Your task to perform on an android device: Clear the cart on target. Search for razer nari on target, select the first entry, add it to the cart, then select checkout. Image 0: 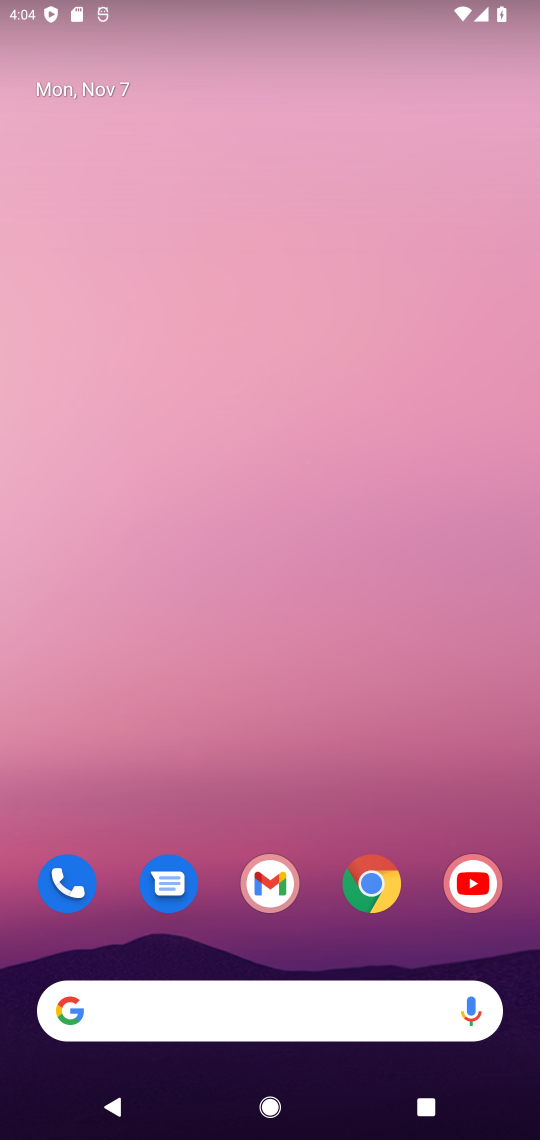
Step 0: click (370, 886)
Your task to perform on an android device: Clear the cart on target. Search for razer nari on target, select the first entry, add it to the cart, then select checkout. Image 1: 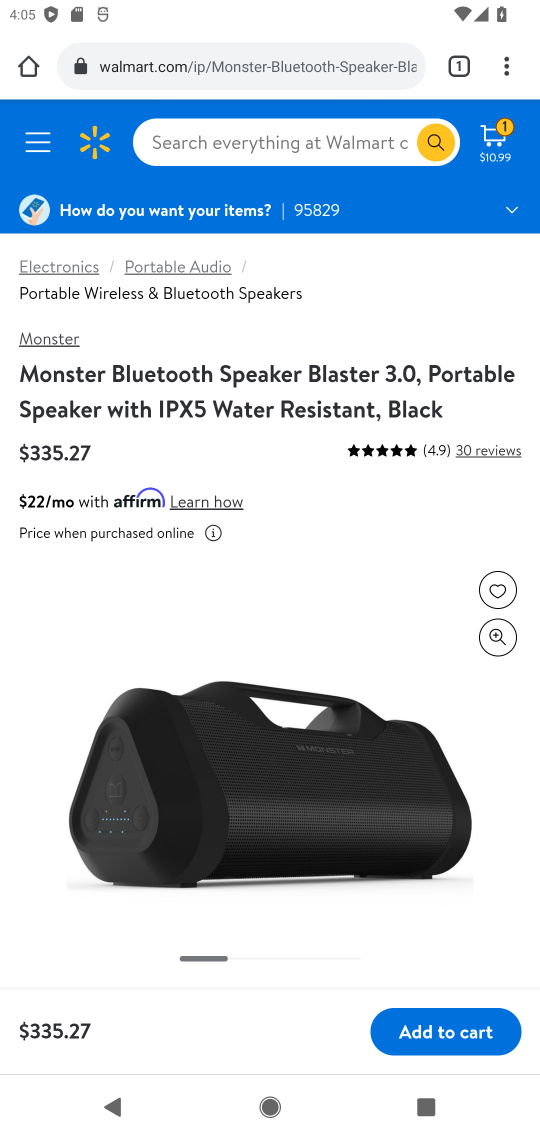
Step 1: click (320, 51)
Your task to perform on an android device: Clear the cart on target. Search for razer nari on target, select the first entry, add it to the cart, then select checkout. Image 2: 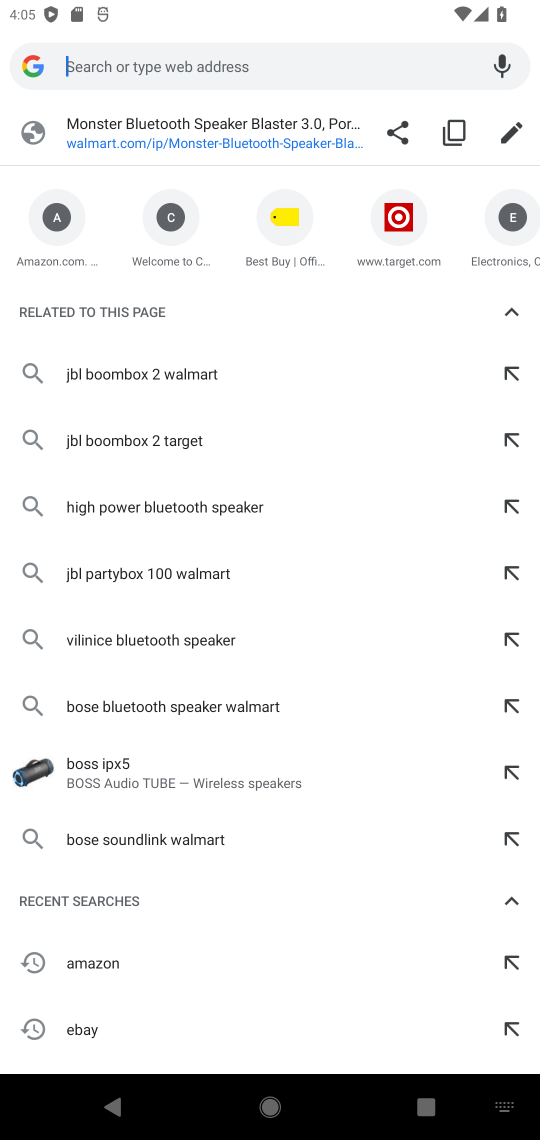
Step 2: click (397, 225)
Your task to perform on an android device: Clear the cart on target. Search for razer nari on target, select the first entry, add it to the cart, then select checkout. Image 3: 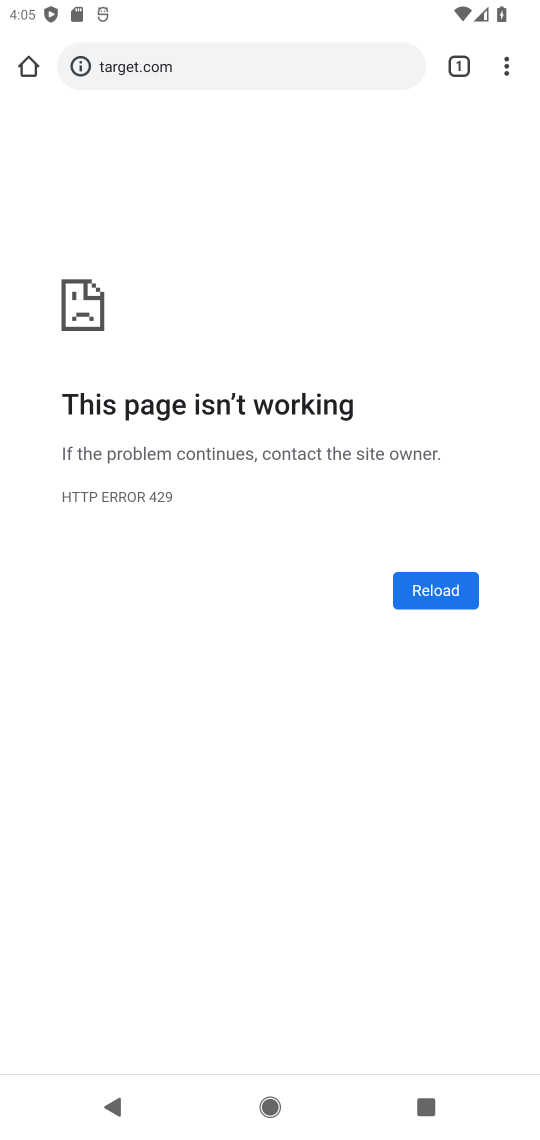
Step 3: task complete